Your task to perform on an android device: toggle sleep mode Image 0: 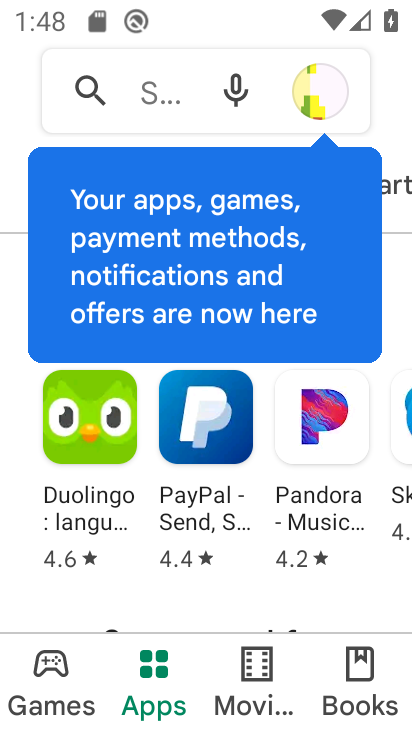
Step 0: press home button
Your task to perform on an android device: toggle sleep mode Image 1: 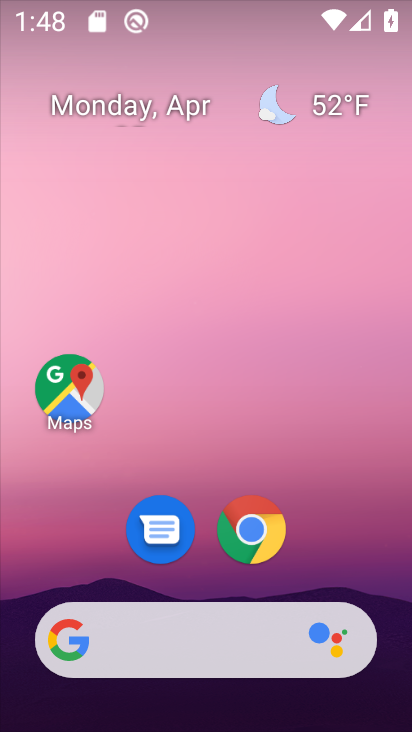
Step 1: drag from (360, 244) to (344, 120)
Your task to perform on an android device: toggle sleep mode Image 2: 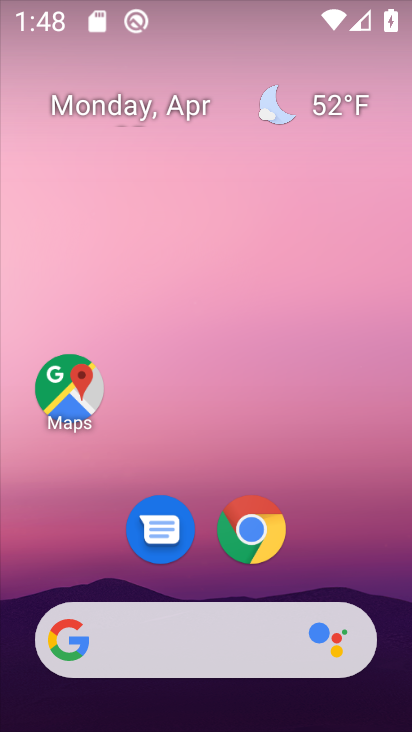
Step 2: drag from (396, 352) to (396, 228)
Your task to perform on an android device: toggle sleep mode Image 3: 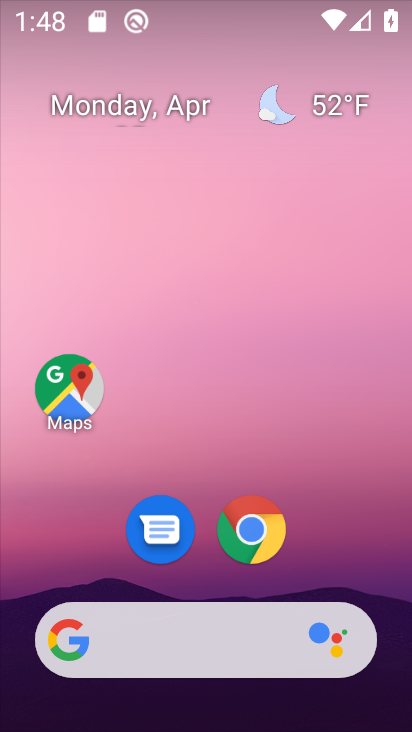
Step 3: drag from (385, 430) to (392, 143)
Your task to perform on an android device: toggle sleep mode Image 4: 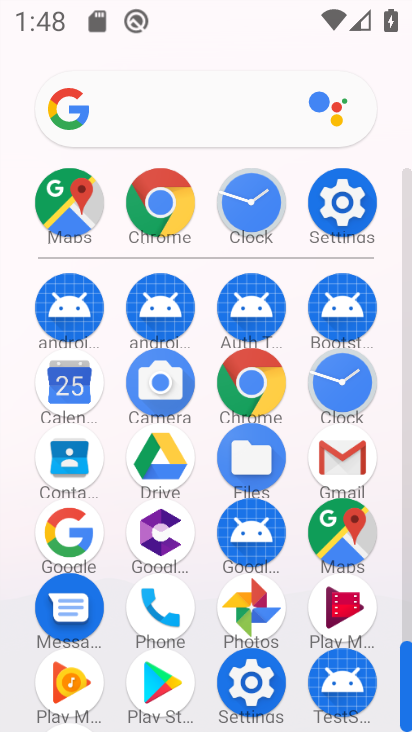
Step 4: click (337, 200)
Your task to perform on an android device: toggle sleep mode Image 5: 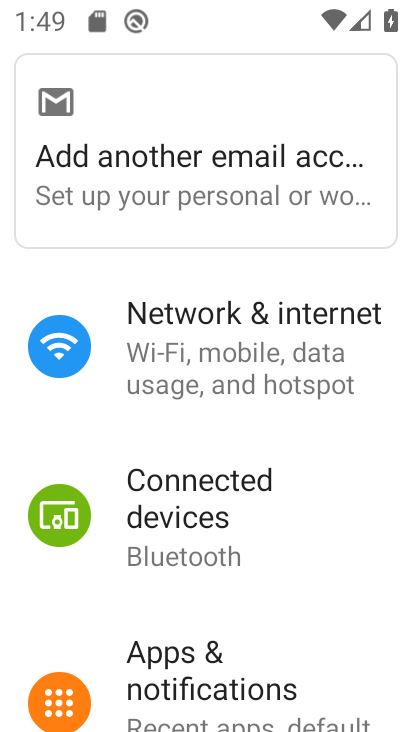
Step 5: drag from (322, 450) to (319, 363)
Your task to perform on an android device: toggle sleep mode Image 6: 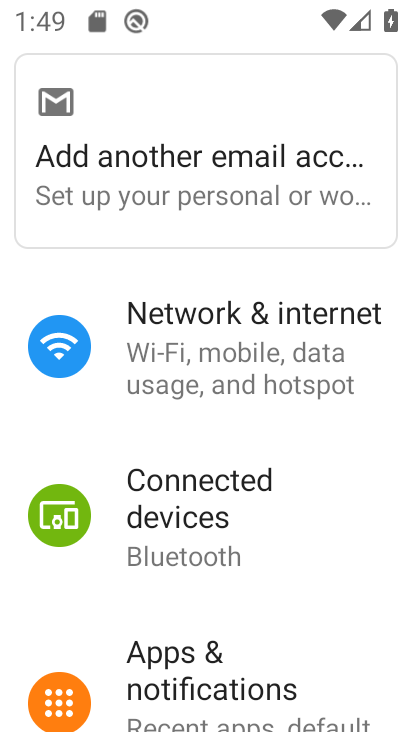
Step 6: drag from (362, 706) to (348, 307)
Your task to perform on an android device: toggle sleep mode Image 7: 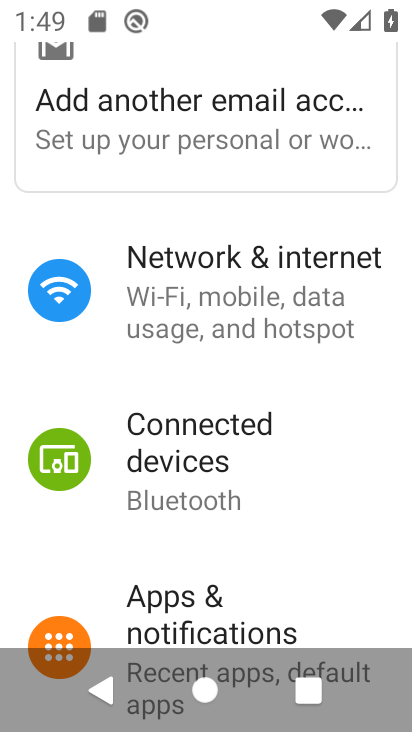
Step 7: drag from (359, 626) to (364, 306)
Your task to perform on an android device: toggle sleep mode Image 8: 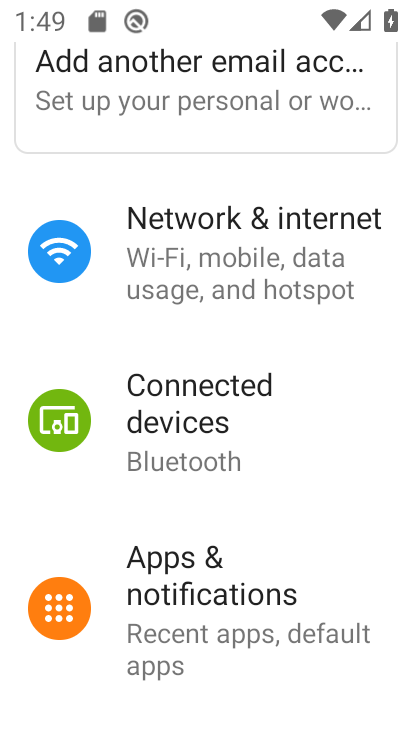
Step 8: drag from (364, 718) to (393, 272)
Your task to perform on an android device: toggle sleep mode Image 9: 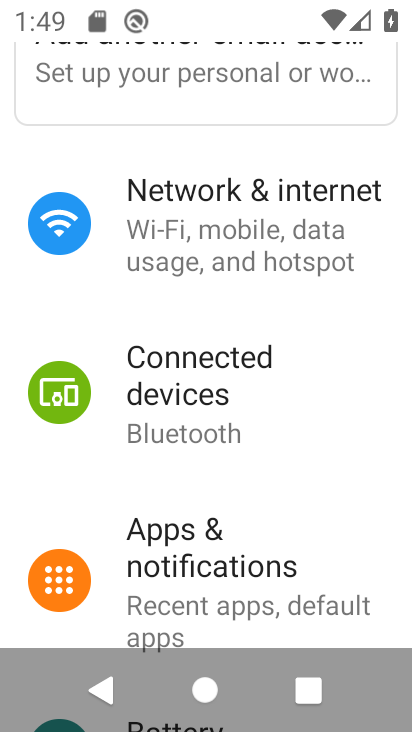
Step 9: drag from (402, 471) to (398, 224)
Your task to perform on an android device: toggle sleep mode Image 10: 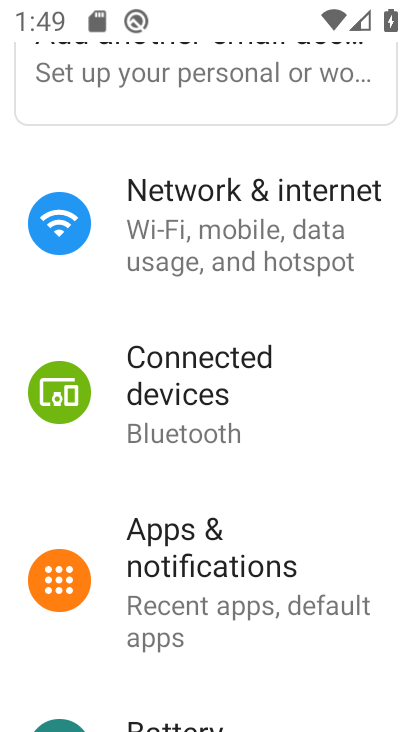
Step 10: drag from (380, 446) to (380, 297)
Your task to perform on an android device: toggle sleep mode Image 11: 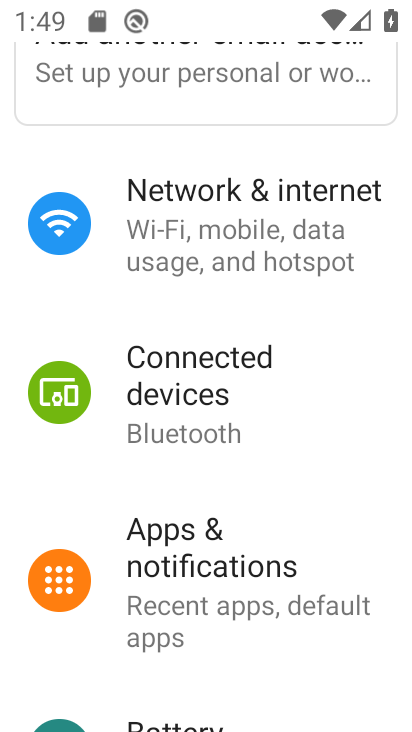
Step 11: drag from (341, 506) to (330, 315)
Your task to perform on an android device: toggle sleep mode Image 12: 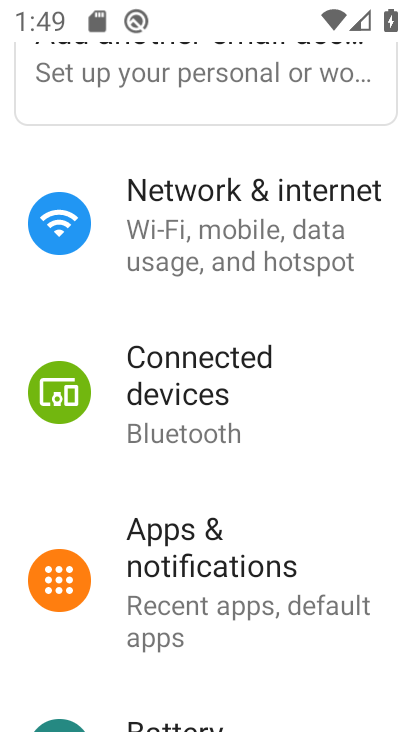
Step 12: drag from (321, 483) to (302, 190)
Your task to perform on an android device: toggle sleep mode Image 13: 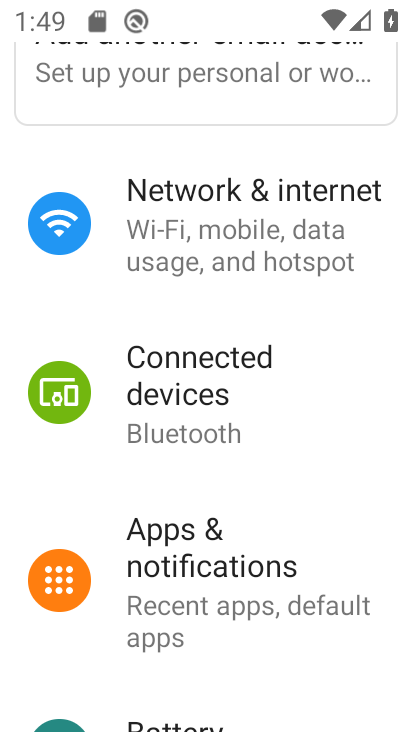
Step 13: drag from (317, 667) to (294, 392)
Your task to perform on an android device: toggle sleep mode Image 14: 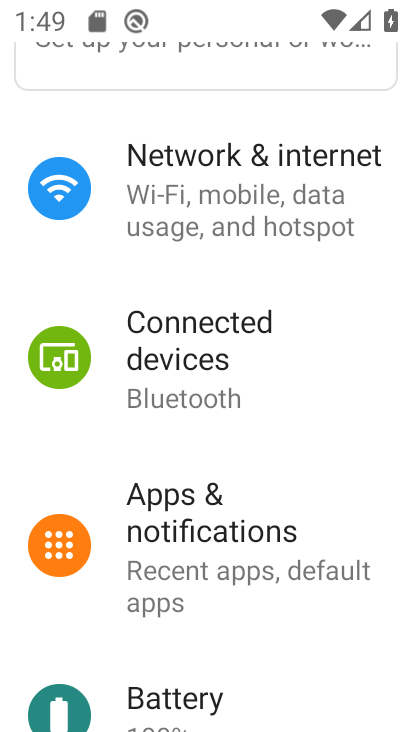
Step 14: drag from (324, 693) to (315, 233)
Your task to perform on an android device: toggle sleep mode Image 15: 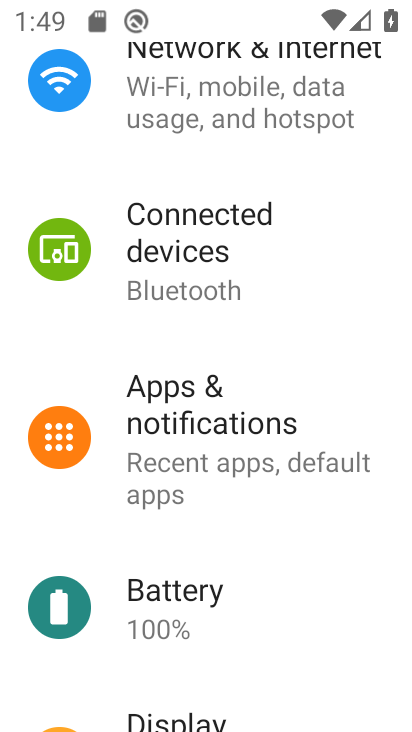
Step 15: drag from (331, 655) to (326, 204)
Your task to perform on an android device: toggle sleep mode Image 16: 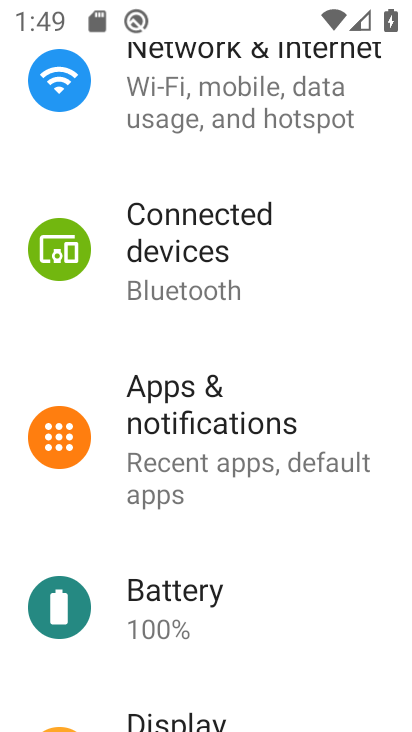
Step 16: drag from (318, 385) to (298, 247)
Your task to perform on an android device: toggle sleep mode Image 17: 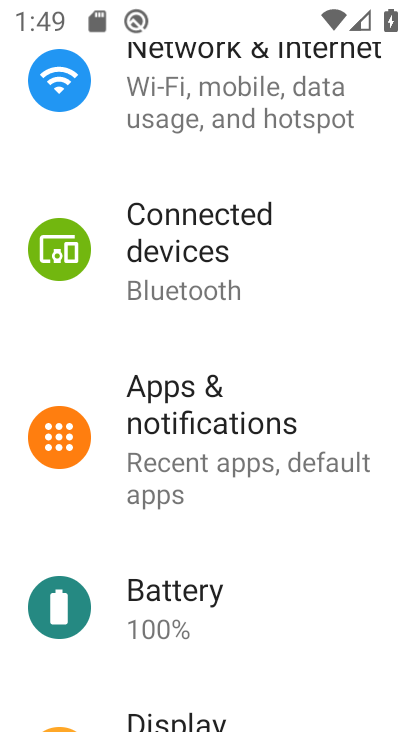
Step 17: drag from (329, 659) to (339, 254)
Your task to perform on an android device: toggle sleep mode Image 18: 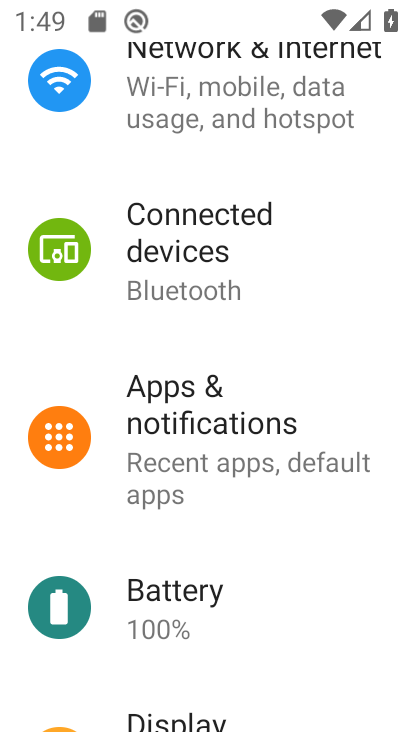
Step 18: click (166, 724)
Your task to perform on an android device: toggle sleep mode Image 19: 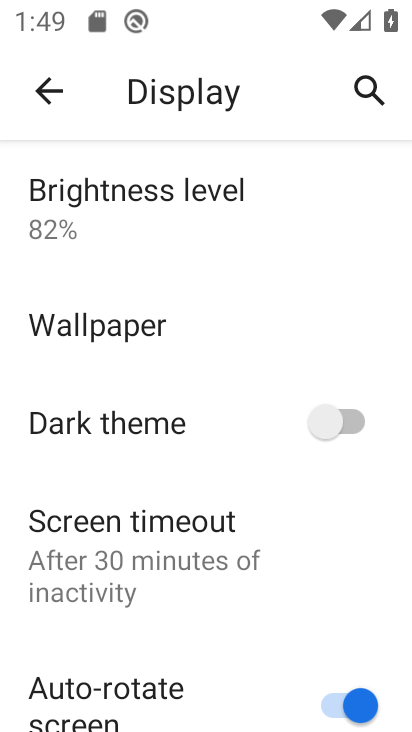
Step 19: click (104, 561)
Your task to perform on an android device: toggle sleep mode Image 20: 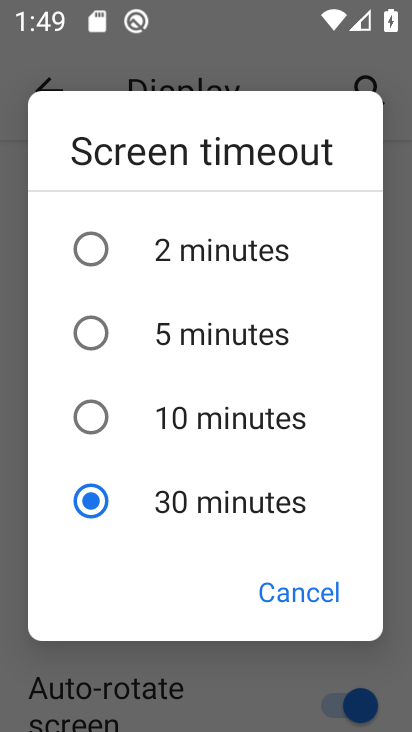
Step 20: click (98, 414)
Your task to perform on an android device: toggle sleep mode Image 21: 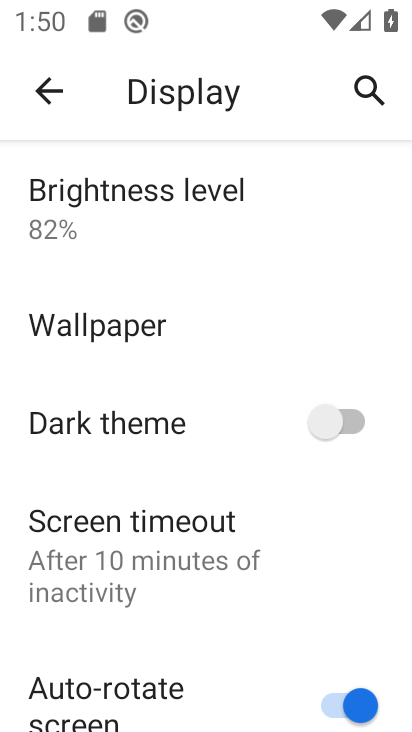
Step 21: task complete